Your task to perform on an android device: Show me the alarms in the clock app Image 0: 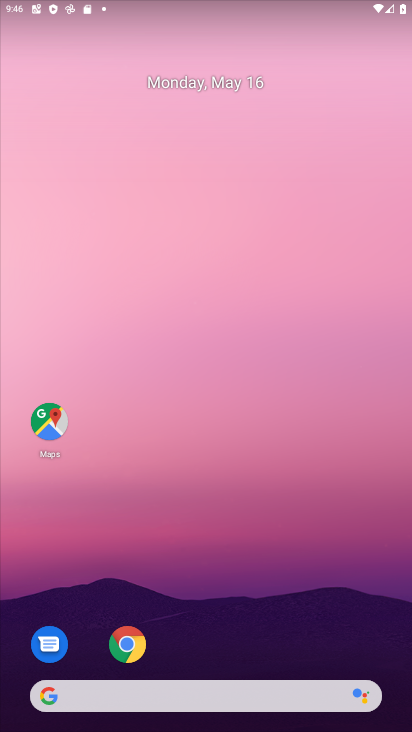
Step 0: drag from (163, 682) to (169, 232)
Your task to perform on an android device: Show me the alarms in the clock app Image 1: 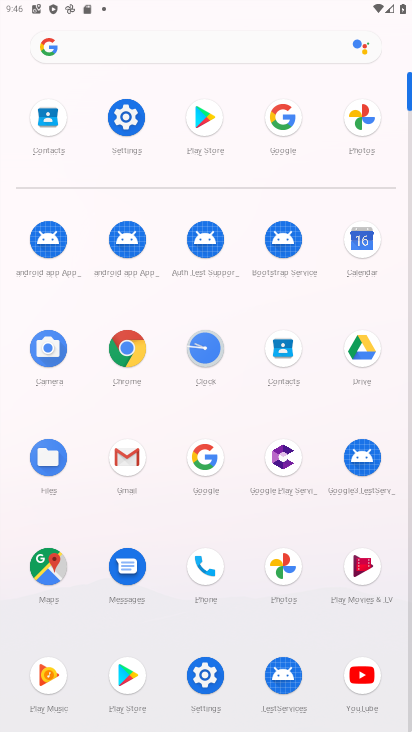
Step 1: click (217, 345)
Your task to perform on an android device: Show me the alarms in the clock app Image 2: 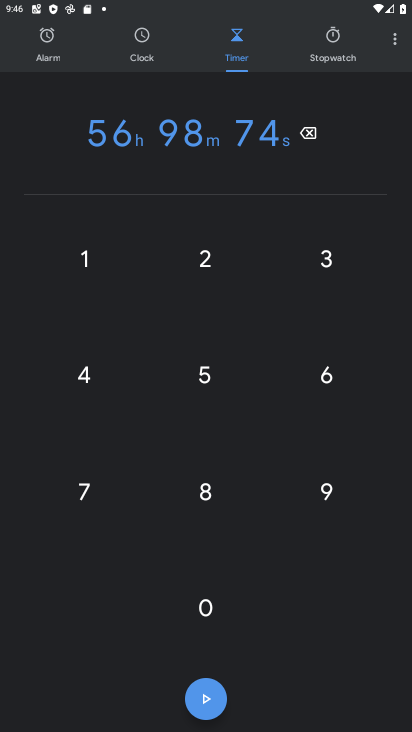
Step 2: click (37, 42)
Your task to perform on an android device: Show me the alarms in the clock app Image 3: 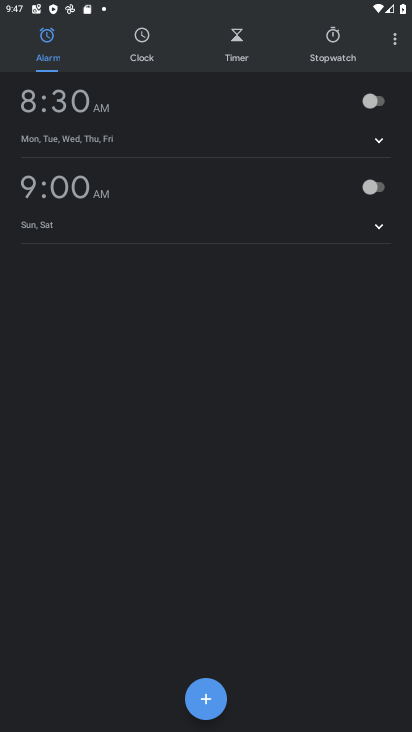
Step 3: task complete